Your task to perform on an android device: visit the assistant section in the google photos Image 0: 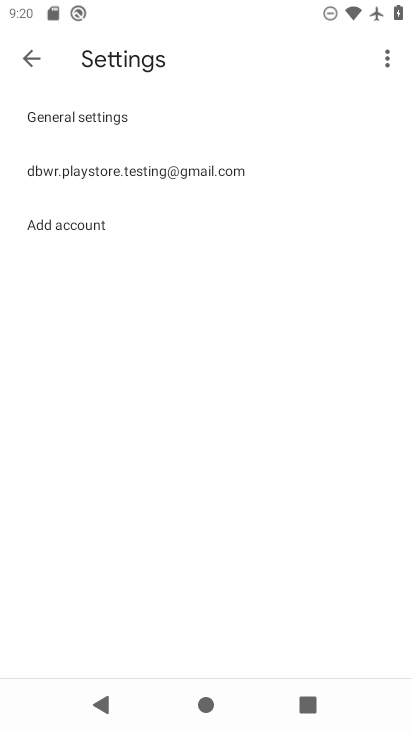
Step 0: press home button
Your task to perform on an android device: visit the assistant section in the google photos Image 1: 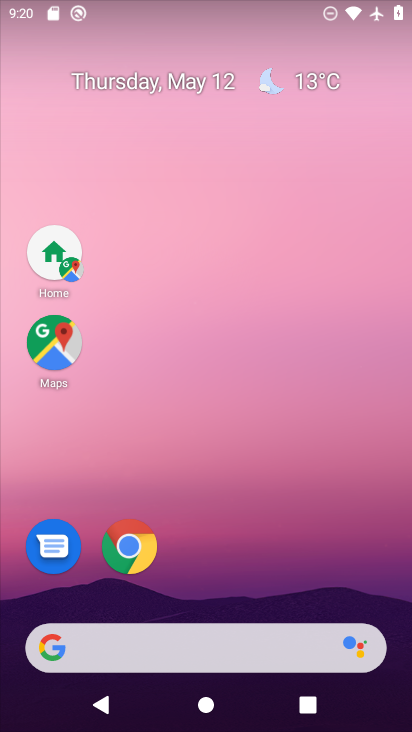
Step 1: drag from (137, 638) to (336, 129)
Your task to perform on an android device: visit the assistant section in the google photos Image 2: 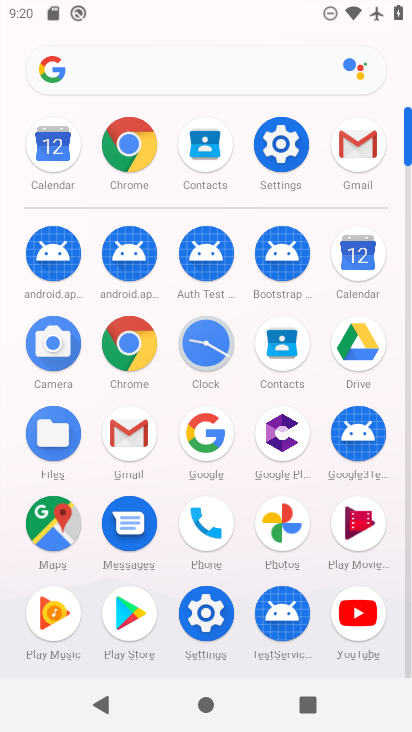
Step 2: click (290, 528)
Your task to perform on an android device: visit the assistant section in the google photos Image 3: 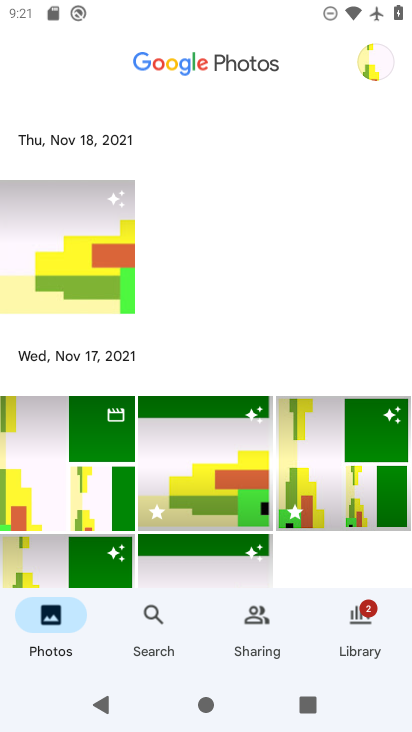
Step 3: click (151, 650)
Your task to perform on an android device: visit the assistant section in the google photos Image 4: 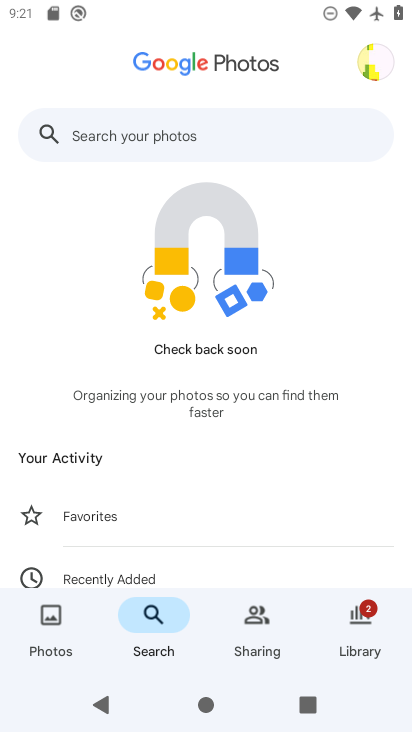
Step 4: task complete